Your task to perform on an android device: Clear the shopping cart on bestbuy. Image 0: 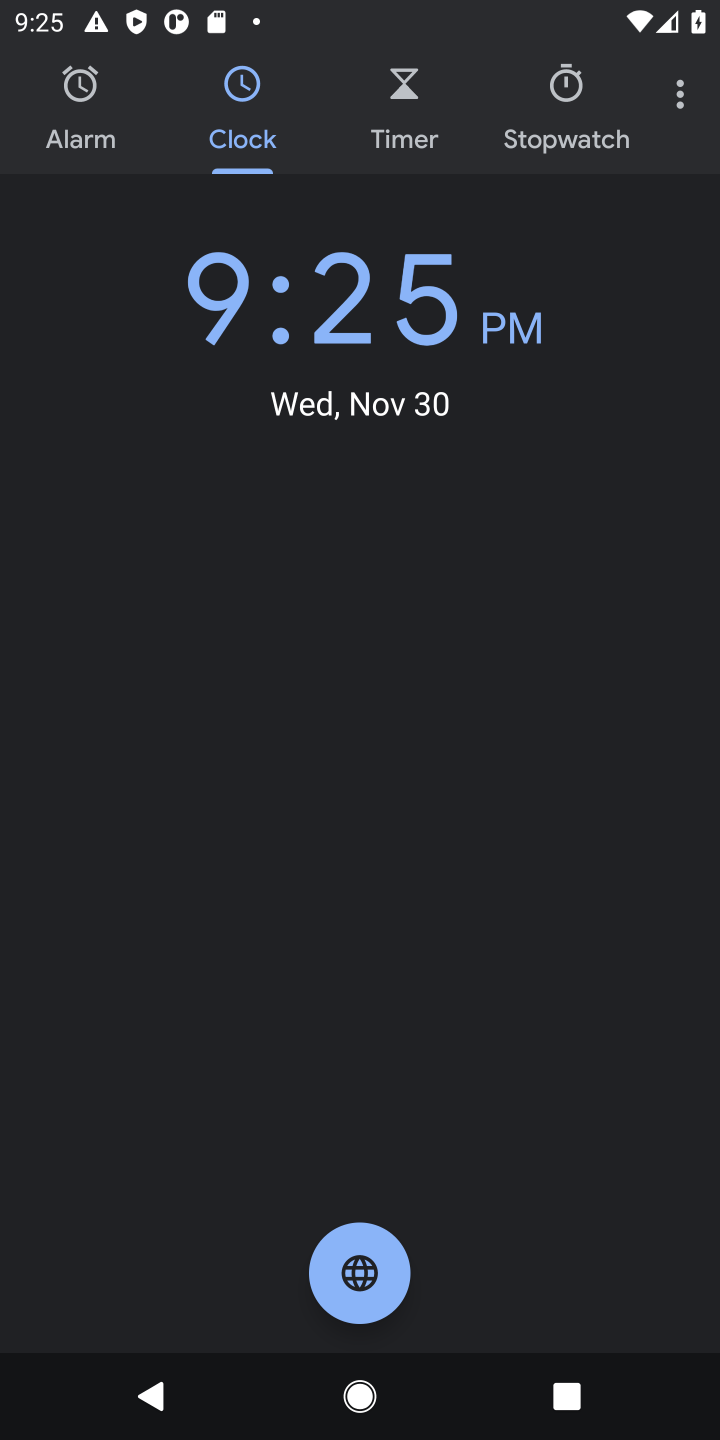
Step 0: press home button
Your task to perform on an android device: Clear the shopping cart on bestbuy. Image 1: 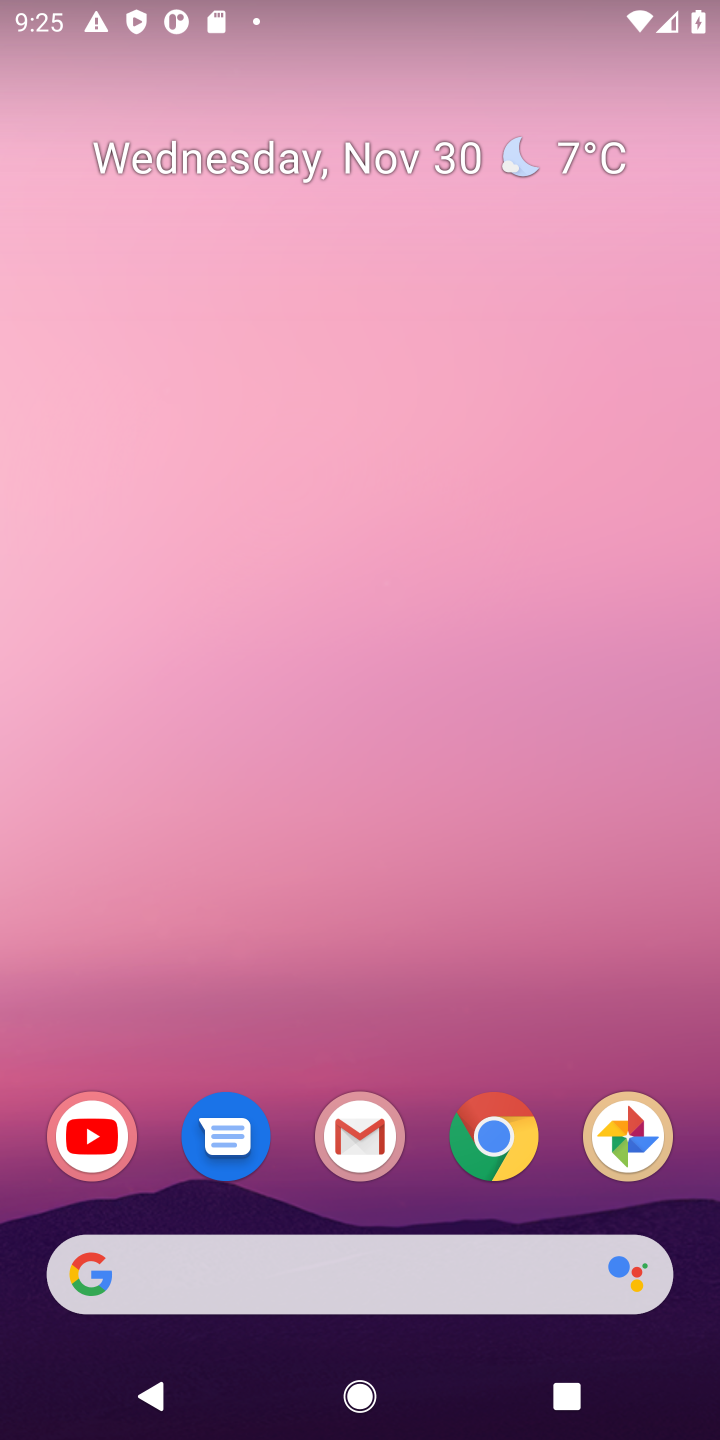
Step 1: click (500, 1155)
Your task to perform on an android device: Clear the shopping cart on bestbuy. Image 2: 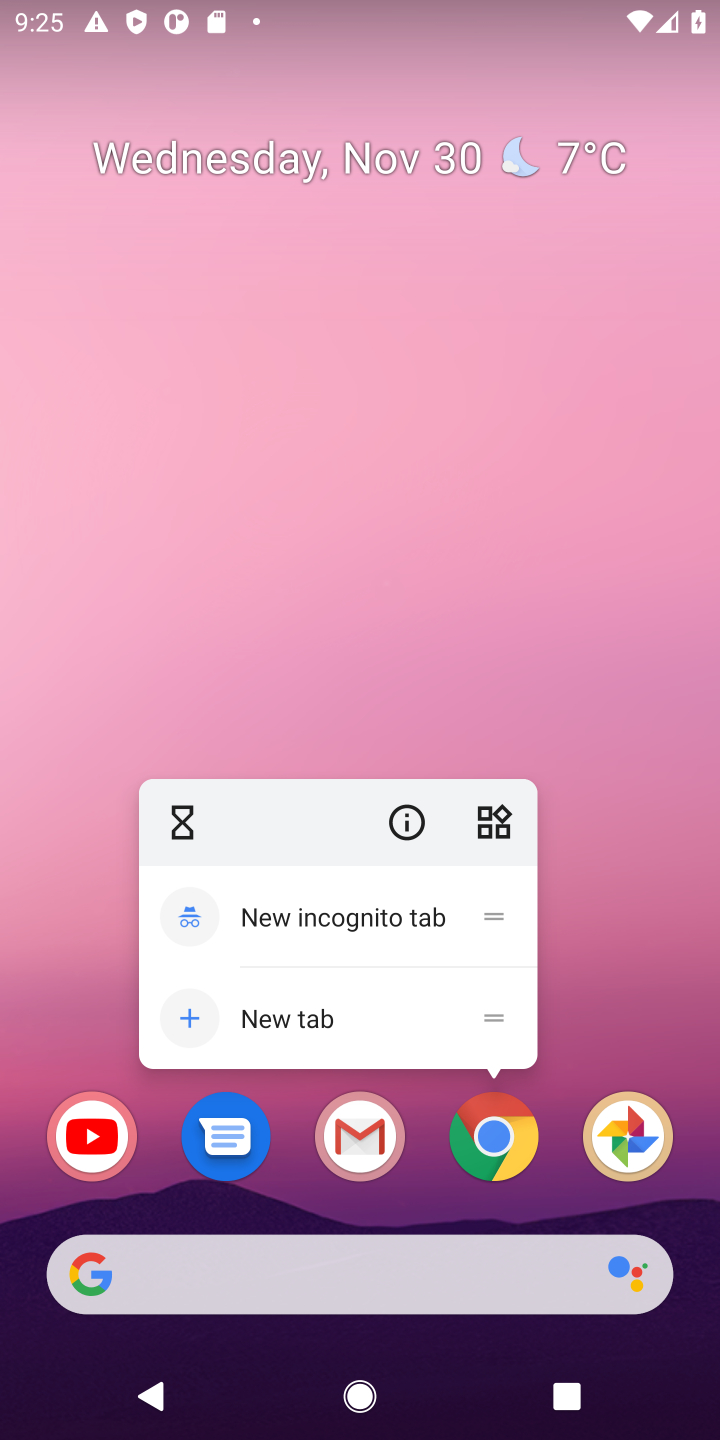
Step 2: click (500, 1155)
Your task to perform on an android device: Clear the shopping cart on bestbuy. Image 3: 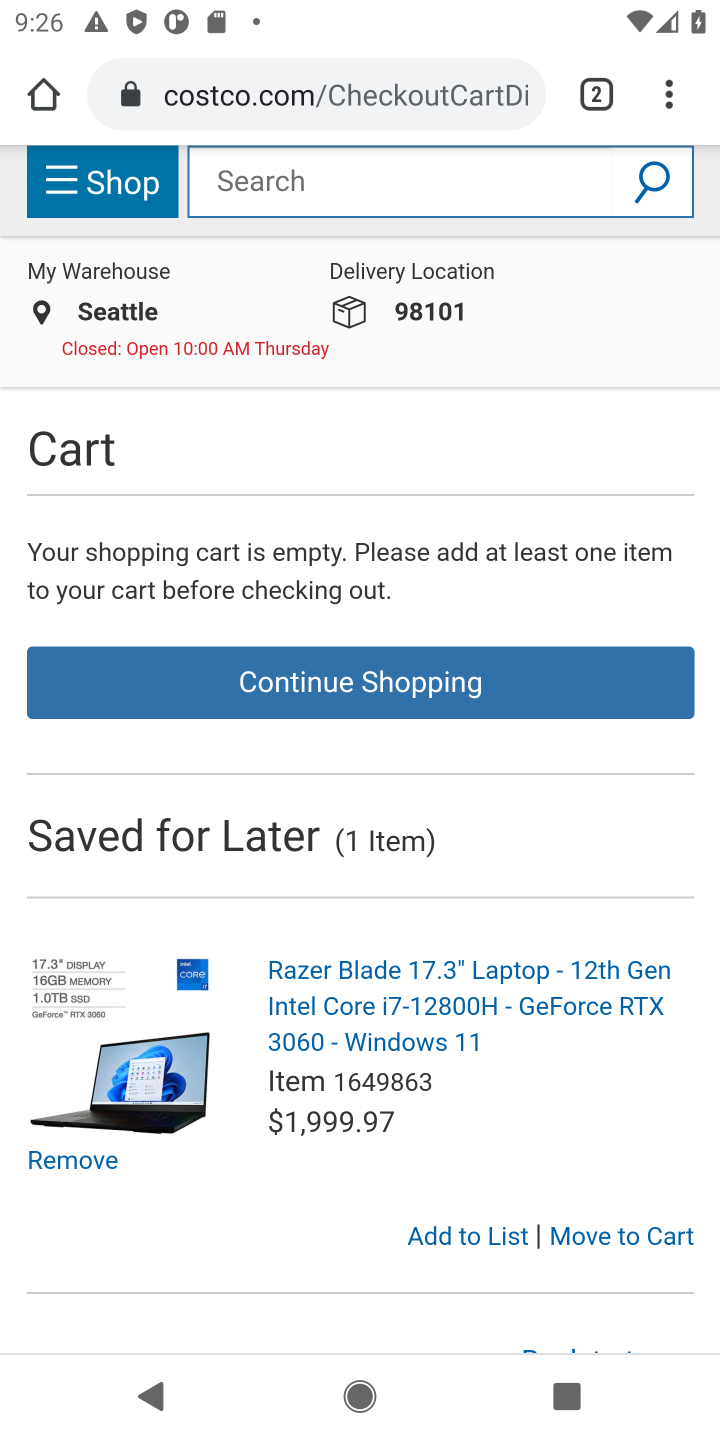
Step 3: click (394, 85)
Your task to perform on an android device: Clear the shopping cart on bestbuy. Image 4: 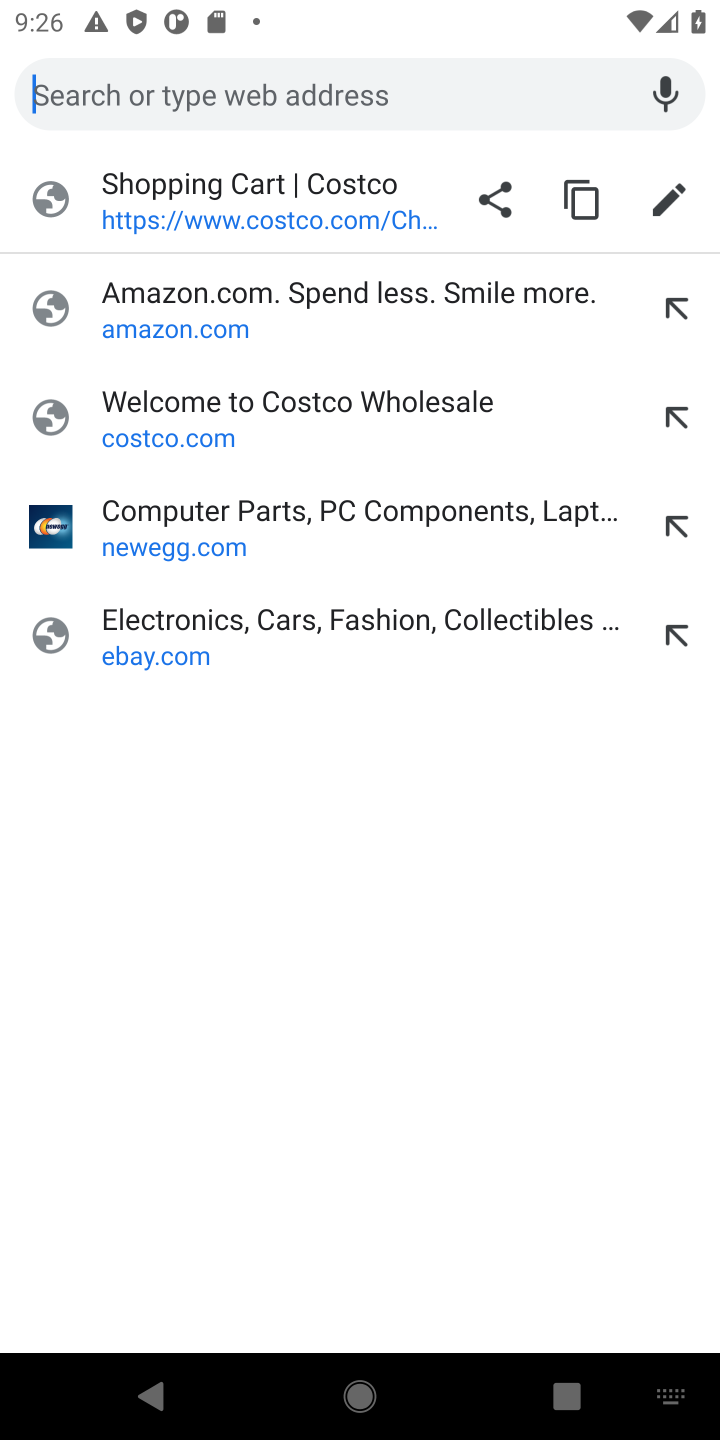
Step 4: type "bestbuy.com"
Your task to perform on an android device: Clear the shopping cart on bestbuy. Image 5: 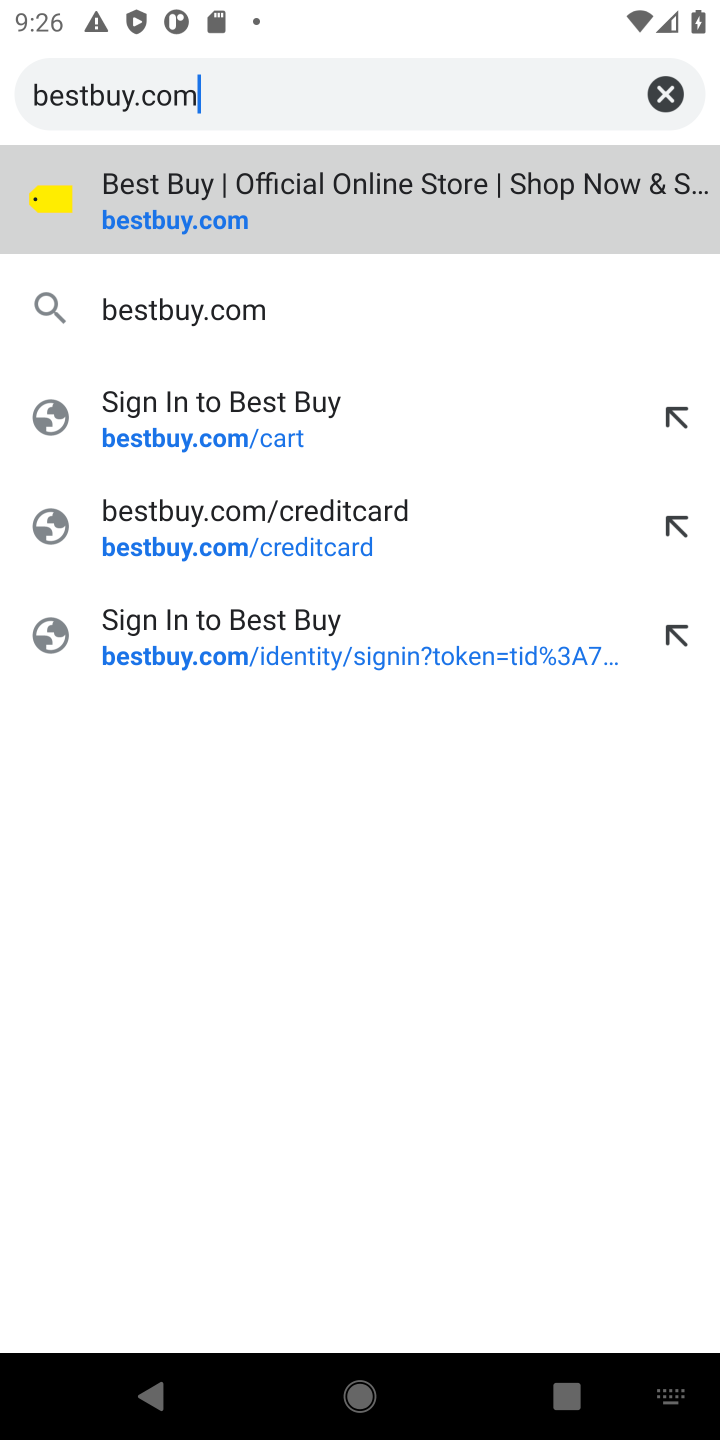
Step 5: click (129, 231)
Your task to perform on an android device: Clear the shopping cart on bestbuy. Image 6: 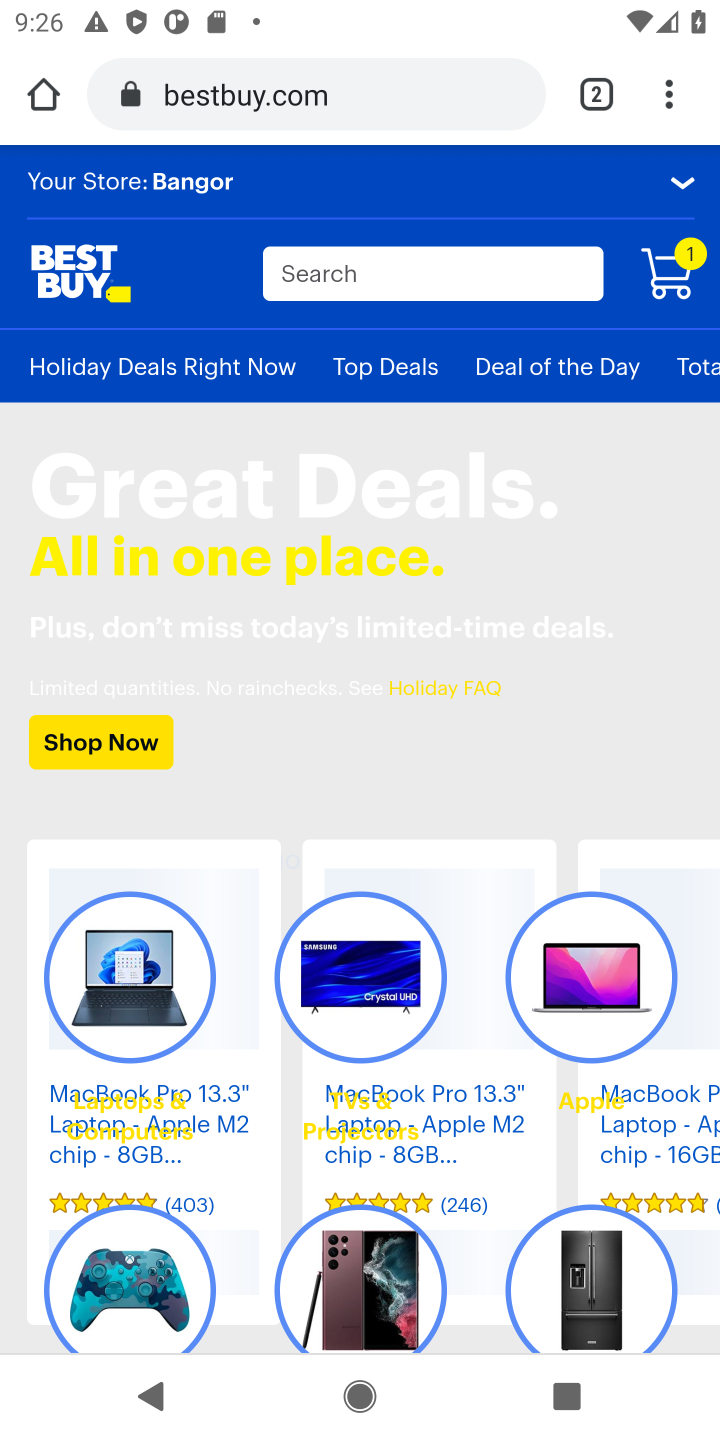
Step 6: click (674, 288)
Your task to perform on an android device: Clear the shopping cart on bestbuy. Image 7: 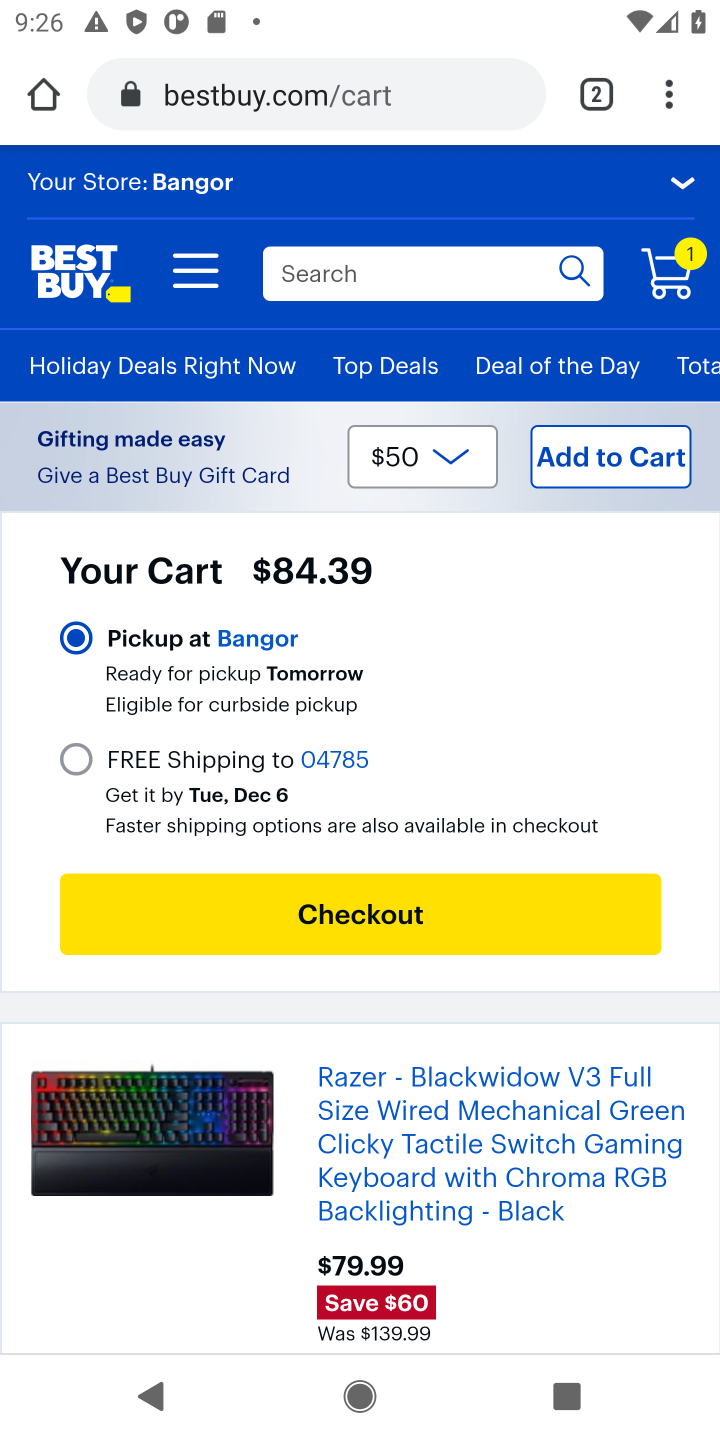
Step 7: drag from (602, 750) to (602, 612)
Your task to perform on an android device: Clear the shopping cart on bestbuy. Image 8: 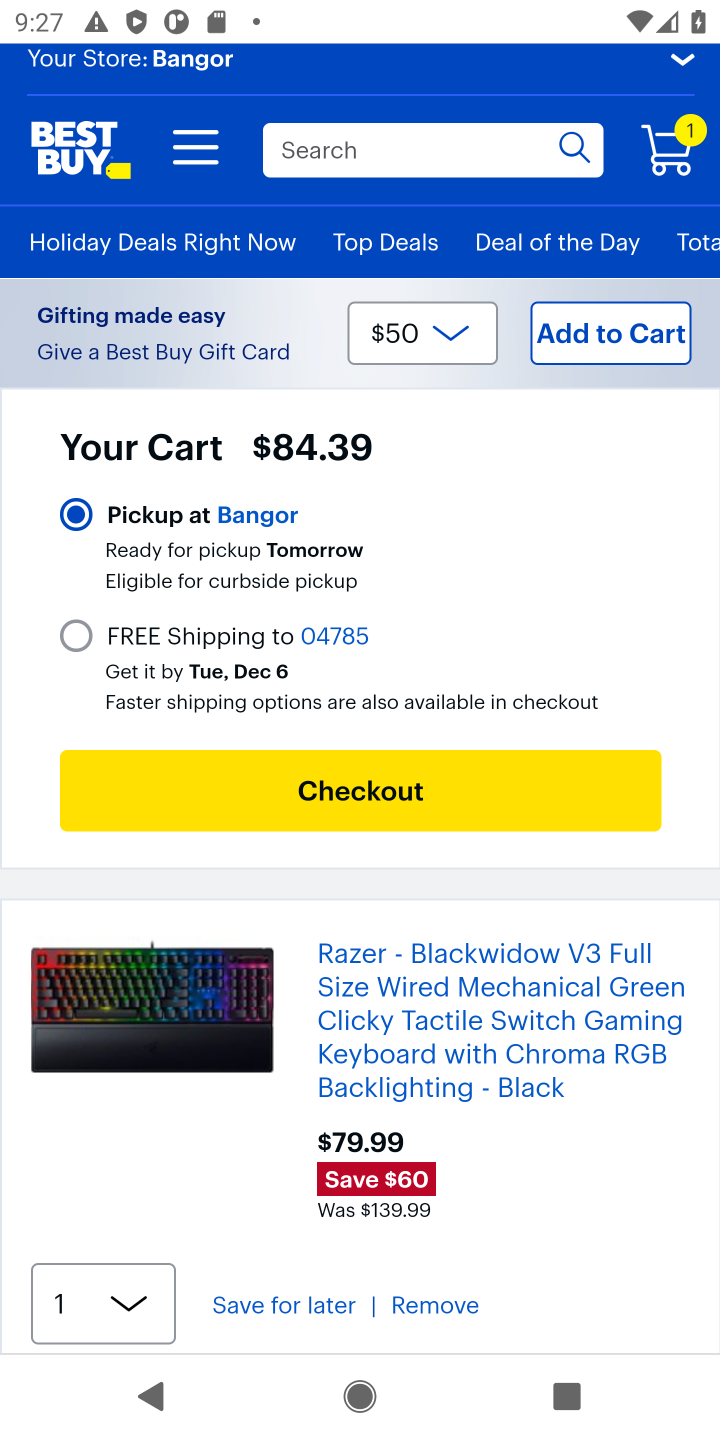
Step 8: drag from (702, 916) to (702, 765)
Your task to perform on an android device: Clear the shopping cart on bestbuy. Image 9: 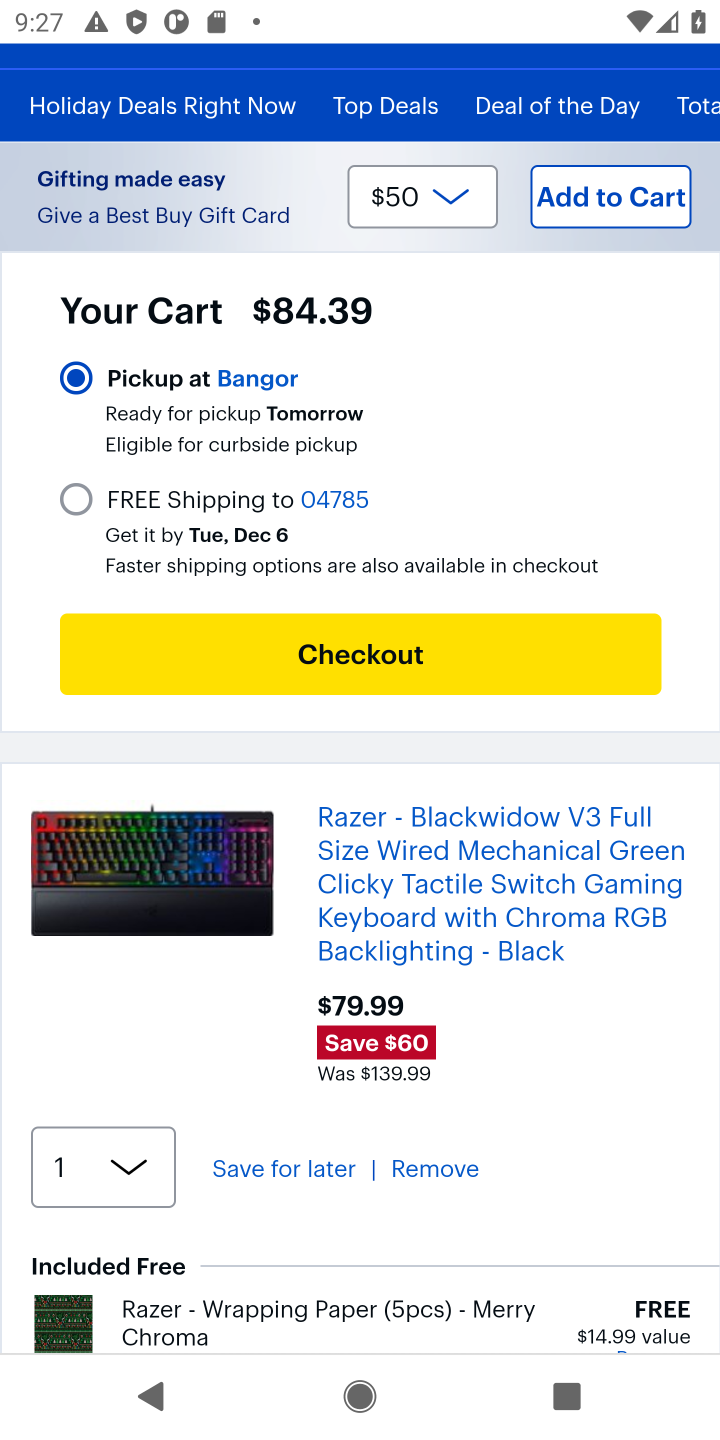
Step 9: click (453, 1171)
Your task to perform on an android device: Clear the shopping cart on bestbuy. Image 10: 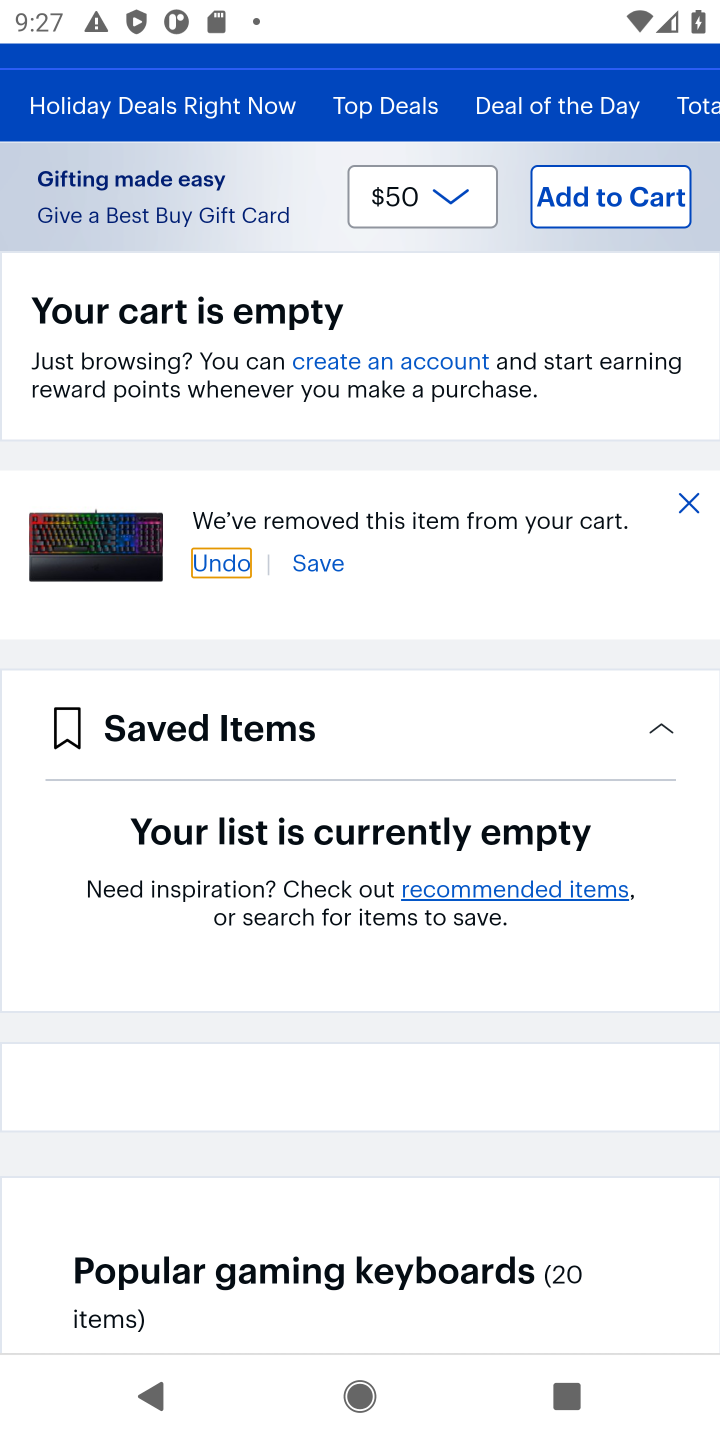
Step 10: task complete